Your task to perform on an android device: Go to Maps Image 0: 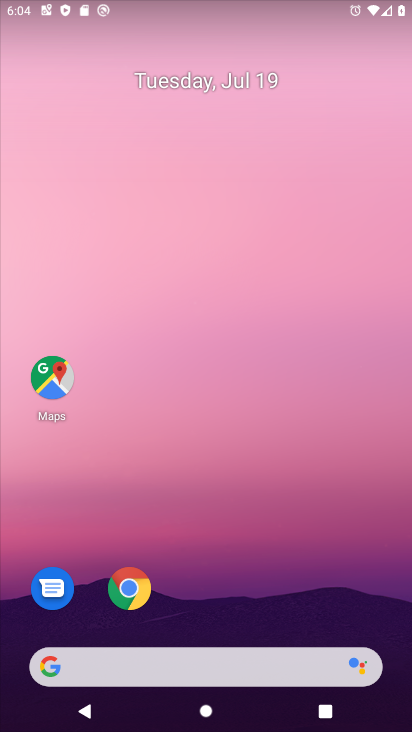
Step 0: click (40, 394)
Your task to perform on an android device: Go to Maps Image 1: 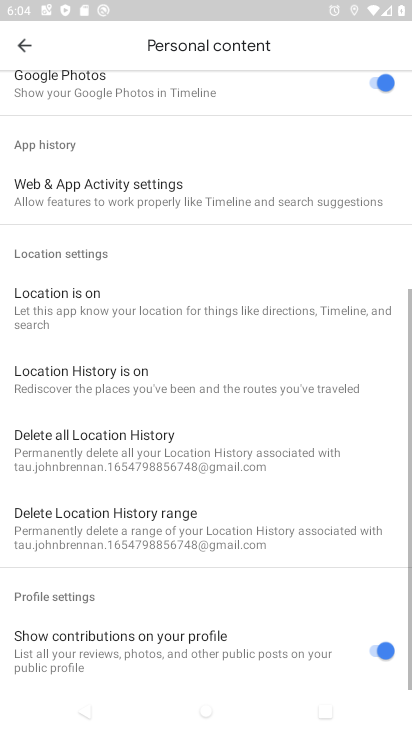
Step 1: task complete